Your task to perform on an android device: Go to battery settings Image 0: 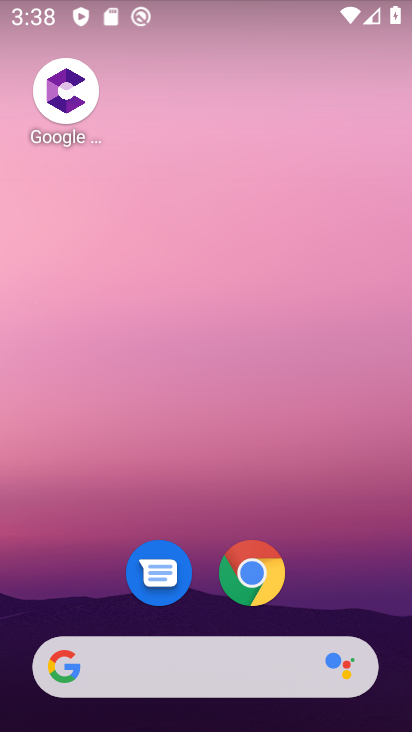
Step 0: drag from (33, 231) to (133, 370)
Your task to perform on an android device: Go to battery settings Image 1: 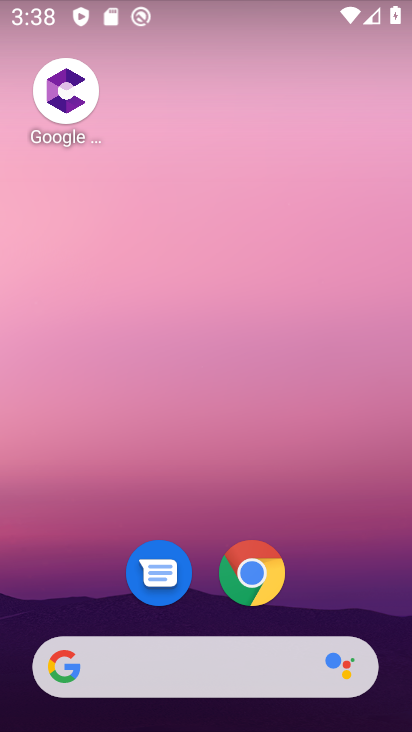
Step 1: drag from (196, 713) to (192, 110)
Your task to perform on an android device: Go to battery settings Image 2: 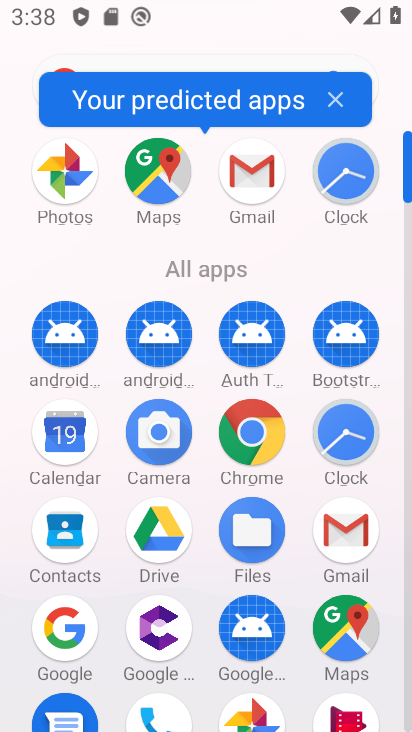
Step 2: drag from (203, 586) to (190, 453)
Your task to perform on an android device: Go to battery settings Image 3: 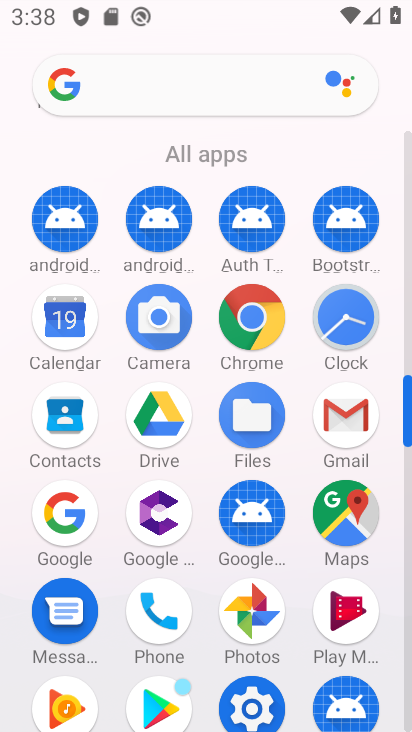
Step 3: click (257, 691)
Your task to perform on an android device: Go to battery settings Image 4: 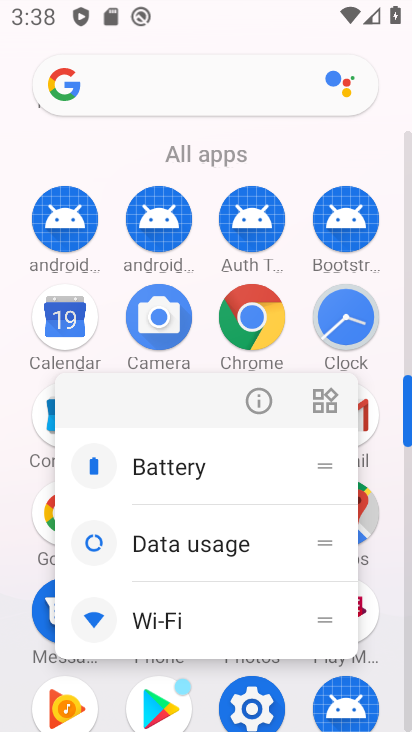
Step 4: click (186, 480)
Your task to perform on an android device: Go to battery settings Image 5: 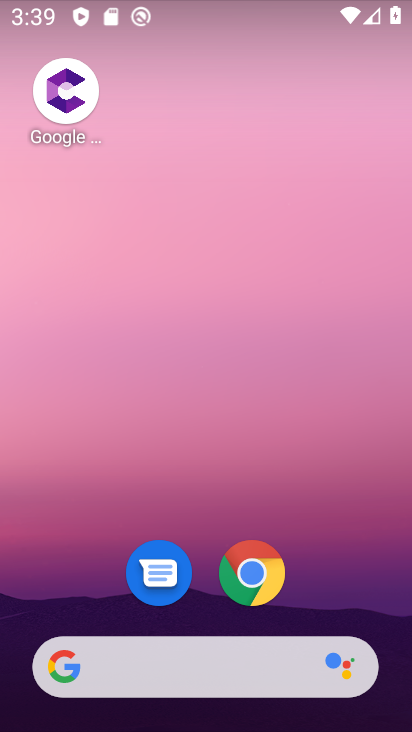
Step 5: drag from (230, 712) to (182, 68)
Your task to perform on an android device: Go to battery settings Image 6: 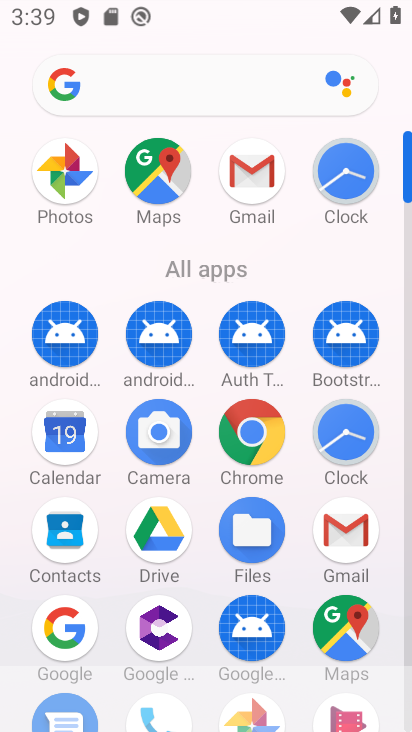
Step 6: drag from (206, 590) to (196, 330)
Your task to perform on an android device: Go to battery settings Image 7: 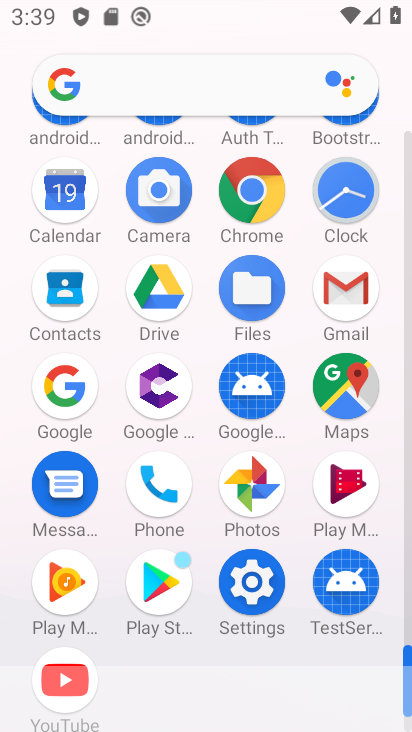
Step 7: click (241, 624)
Your task to perform on an android device: Go to battery settings Image 8: 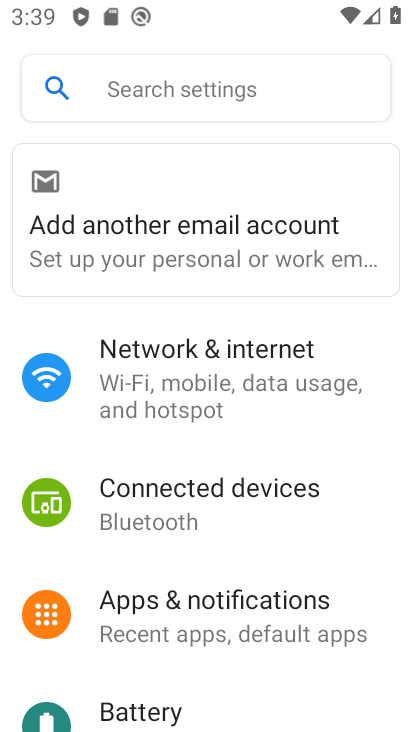
Step 8: click (174, 98)
Your task to perform on an android device: Go to battery settings Image 9: 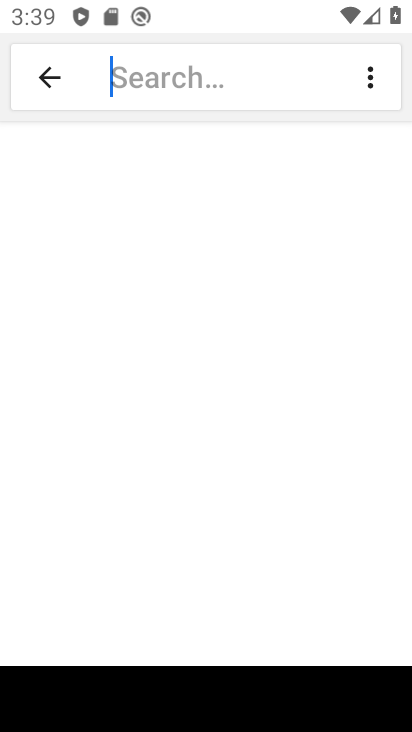
Step 9: click (387, 712)
Your task to perform on an android device: Go to battery settings Image 10: 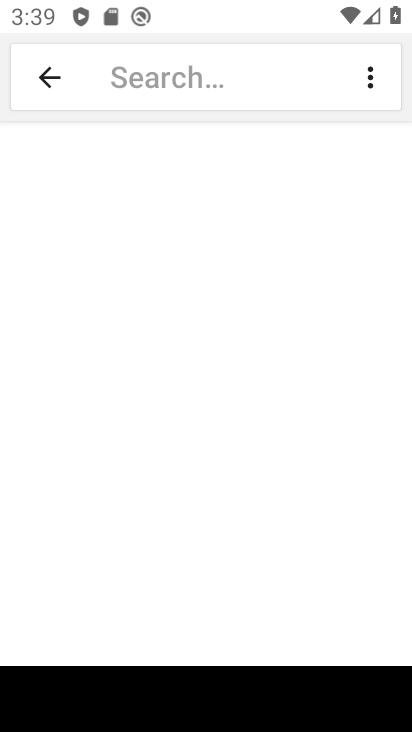
Step 10: drag from (387, 712) to (379, 657)
Your task to perform on an android device: Go to battery settings Image 11: 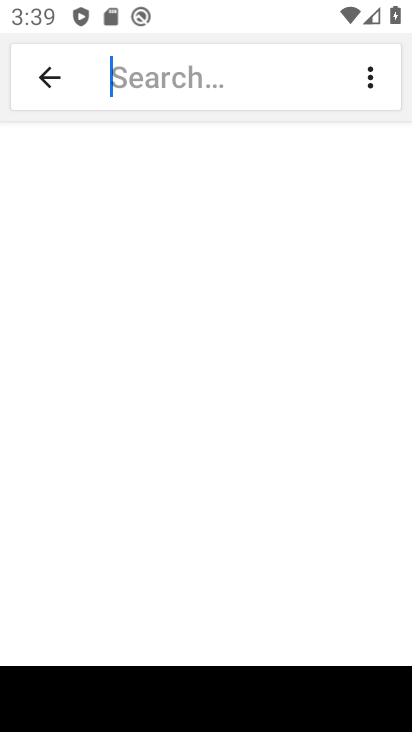
Step 11: click (394, 712)
Your task to perform on an android device: Go to battery settings Image 12: 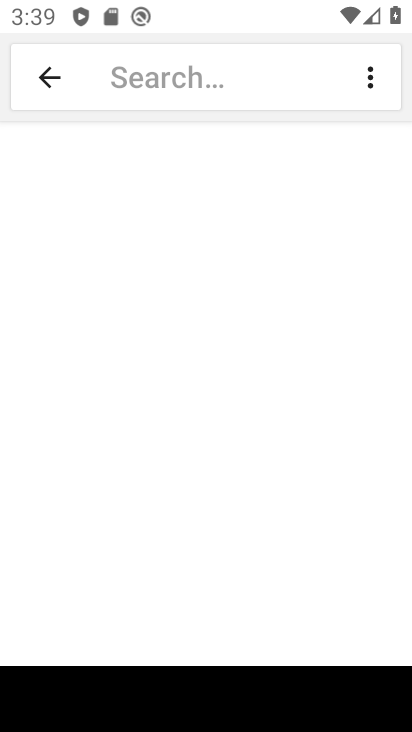
Step 12: click (41, 80)
Your task to perform on an android device: Go to battery settings Image 13: 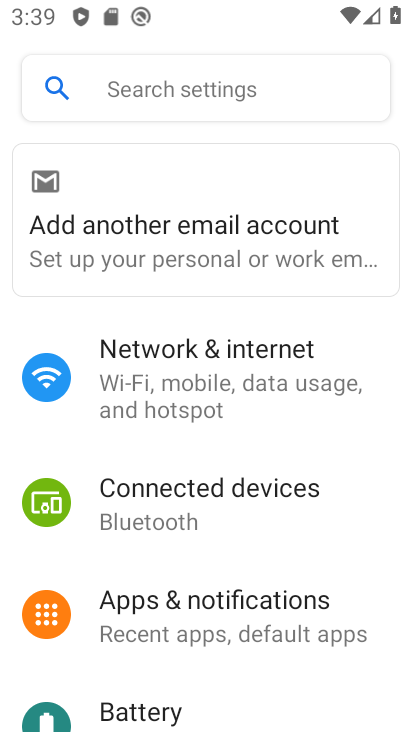
Step 13: drag from (206, 473) to (209, 108)
Your task to perform on an android device: Go to battery settings Image 14: 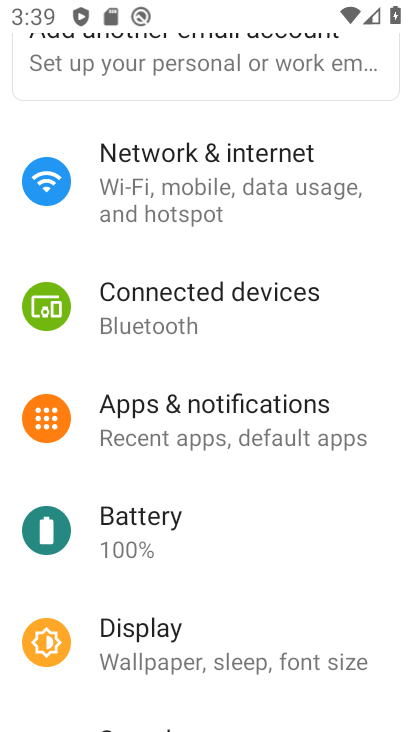
Step 14: click (154, 523)
Your task to perform on an android device: Go to battery settings Image 15: 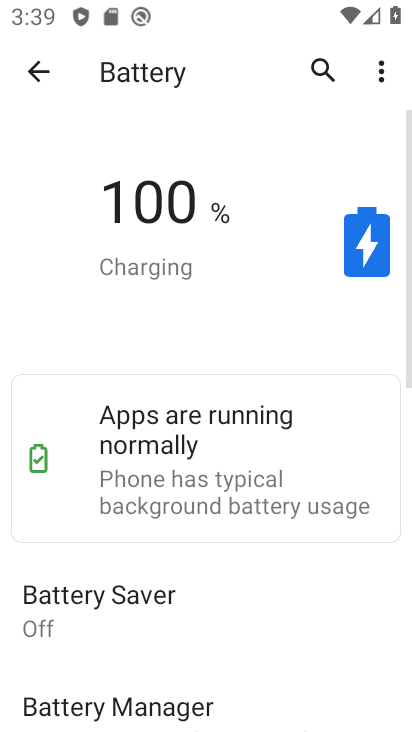
Step 15: task complete